Your task to perform on an android device: Open eBay Image 0: 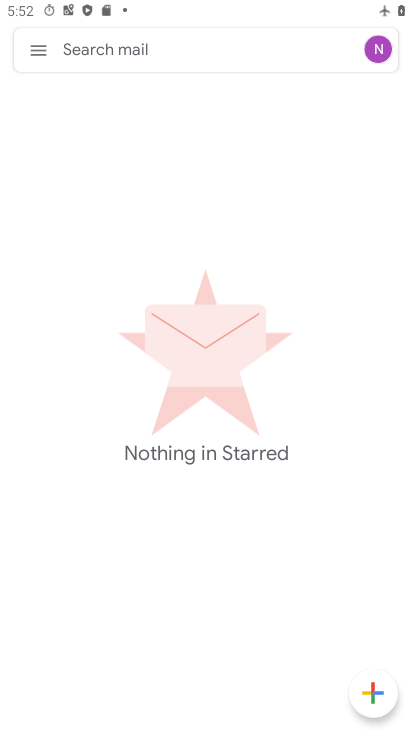
Step 0: press home button
Your task to perform on an android device: Open eBay Image 1: 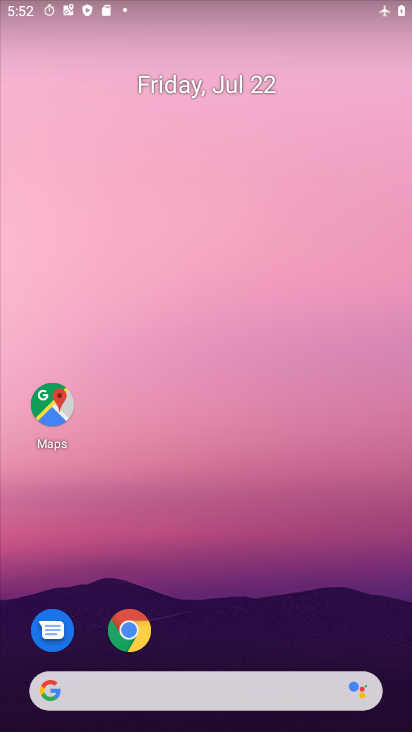
Step 1: drag from (159, 525) to (92, 0)
Your task to perform on an android device: Open eBay Image 2: 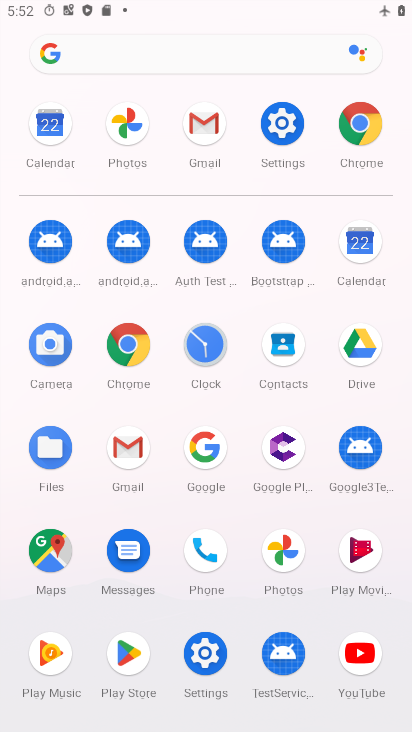
Step 2: click (127, 357)
Your task to perform on an android device: Open eBay Image 3: 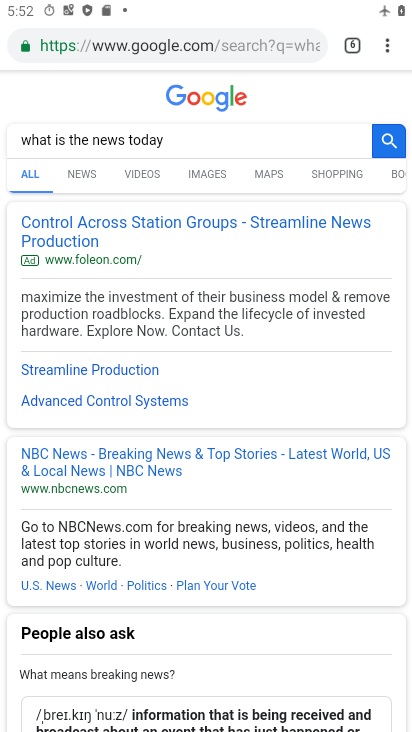
Step 3: click (192, 46)
Your task to perform on an android device: Open eBay Image 4: 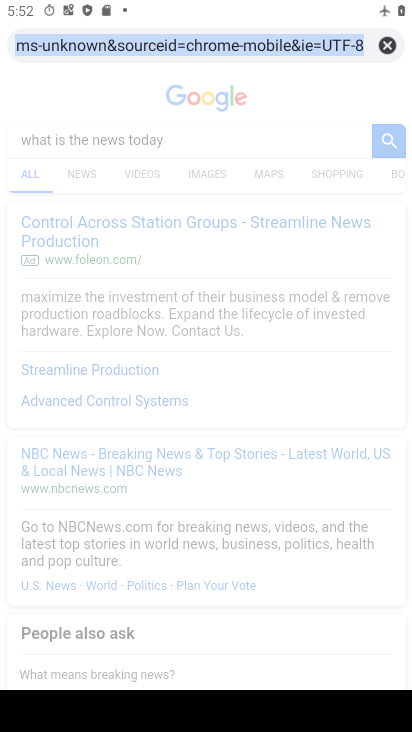
Step 4: type "ebay"
Your task to perform on an android device: Open eBay Image 5: 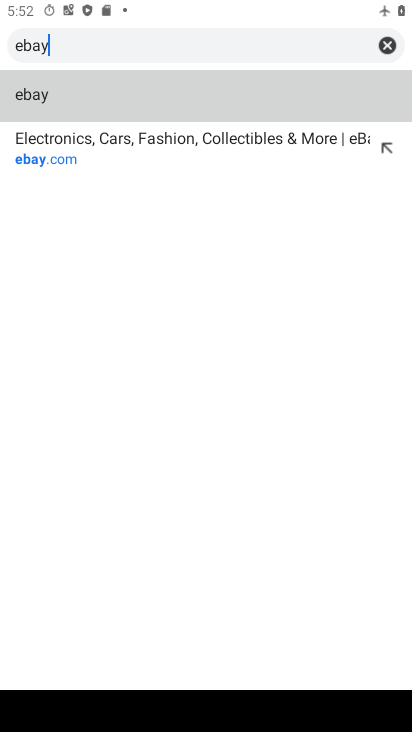
Step 5: click (194, 143)
Your task to perform on an android device: Open eBay Image 6: 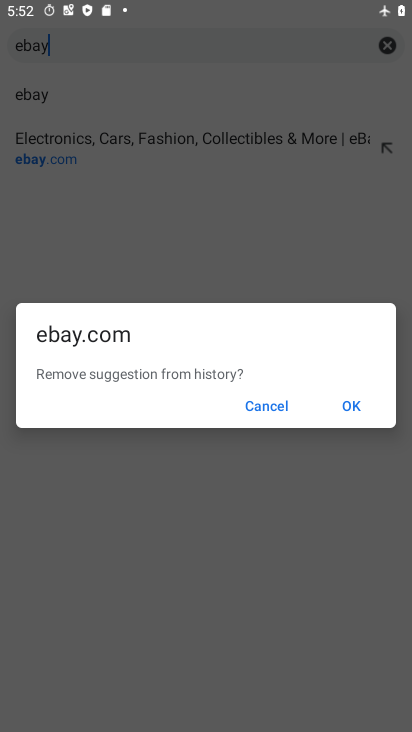
Step 6: click (357, 401)
Your task to perform on an android device: Open eBay Image 7: 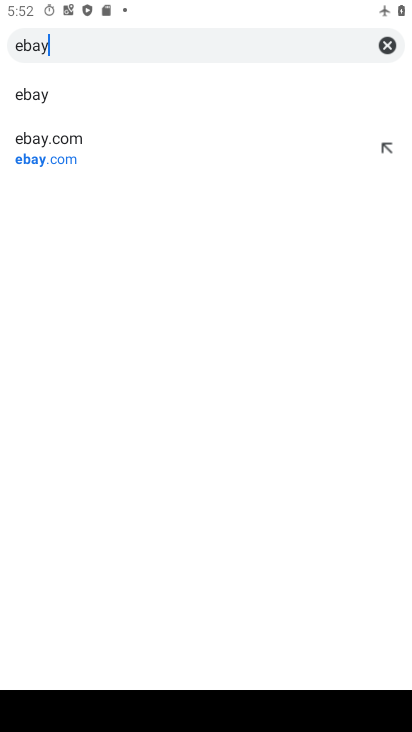
Step 7: click (77, 151)
Your task to perform on an android device: Open eBay Image 8: 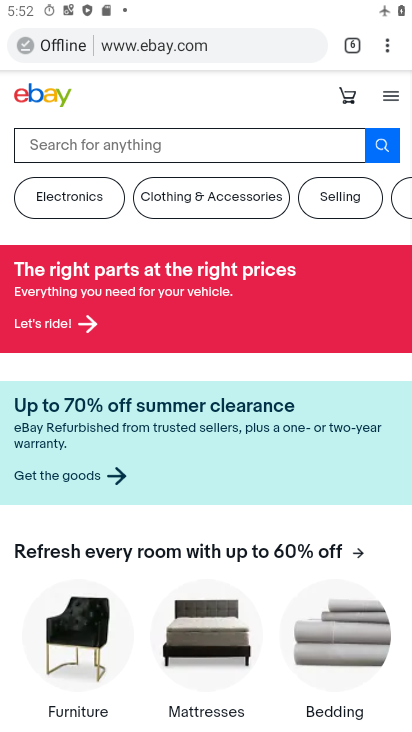
Step 8: task complete